Your task to perform on an android device: Open a new private window in Chrome Image 0: 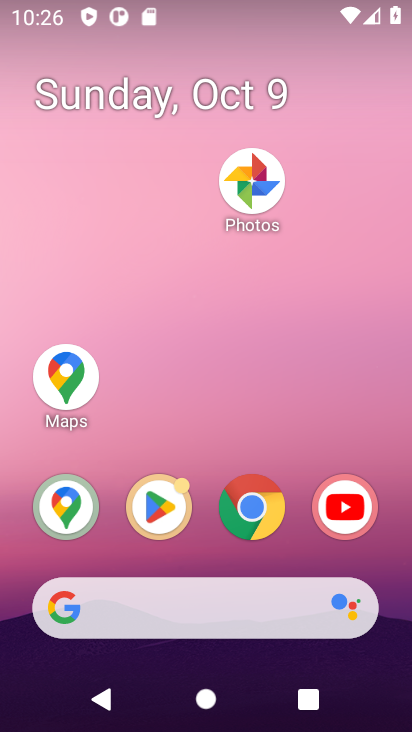
Step 0: drag from (206, 457) to (241, 12)
Your task to perform on an android device: Open a new private window in Chrome Image 1: 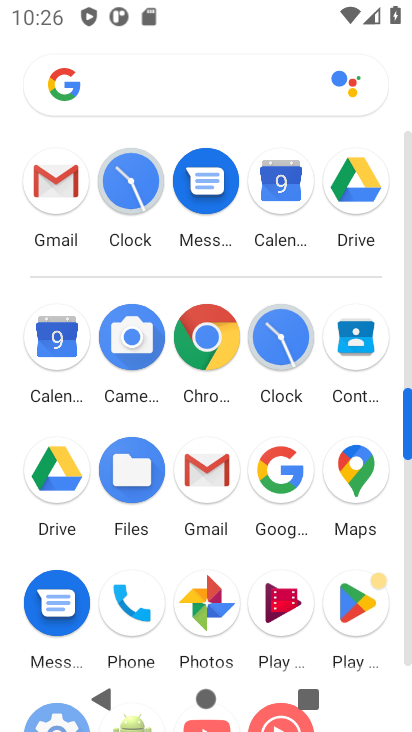
Step 1: click (215, 335)
Your task to perform on an android device: Open a new private window in Chrome Image 2: 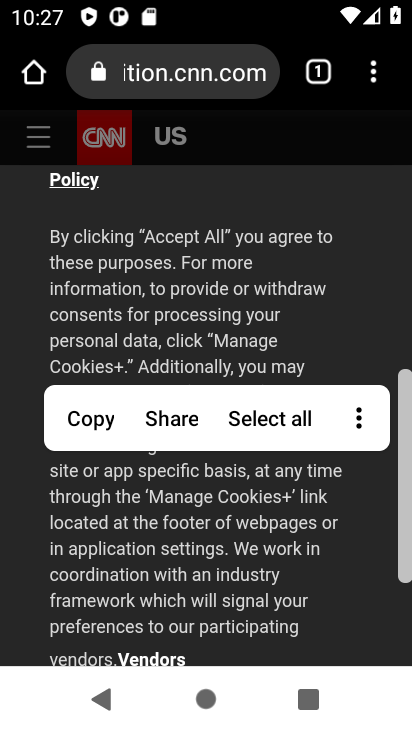
Step 2: task complete